Your task to perform on an android device: check data usage Image 0: 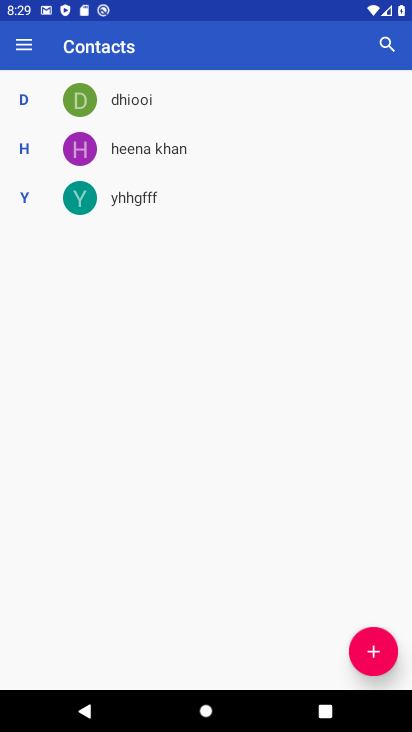
Step 0: press home button
Your task to perform on an android device: check data usage Image 1: 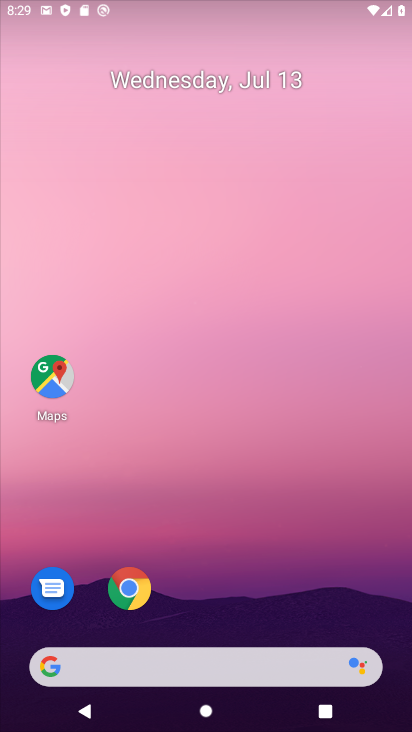
Step 1: drag from (331, 616) to (378, 143)
Your task to perform on an android device: check data usage Image 2: 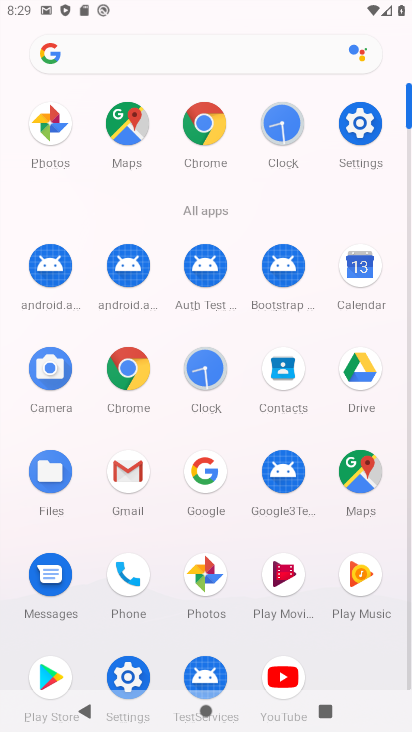
Step 2: click (346, 114)
Your task to perform on an android device: check data usage Image 3: 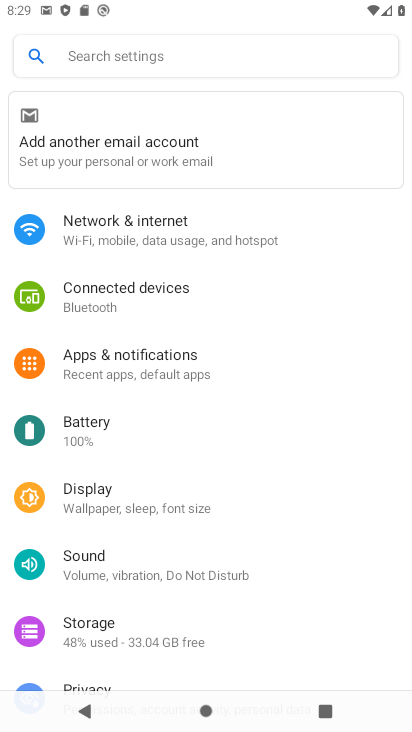
Step 3: click (175, 227)
Your task to perform on an android device: check data usage Image 4: 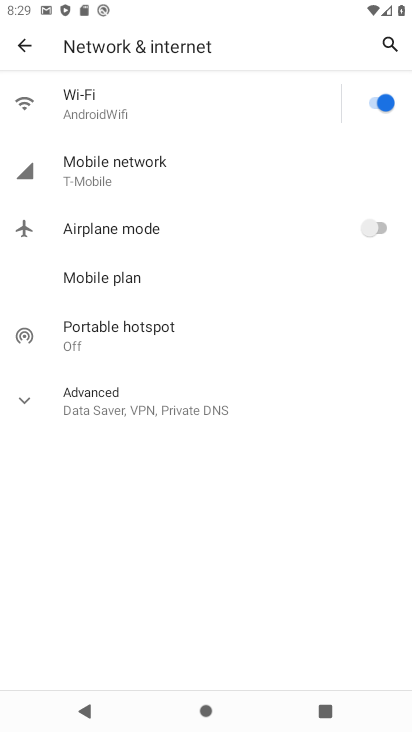
Step 4: click (125, 164)
Your task to perform on an android device: check data usage Image 5: 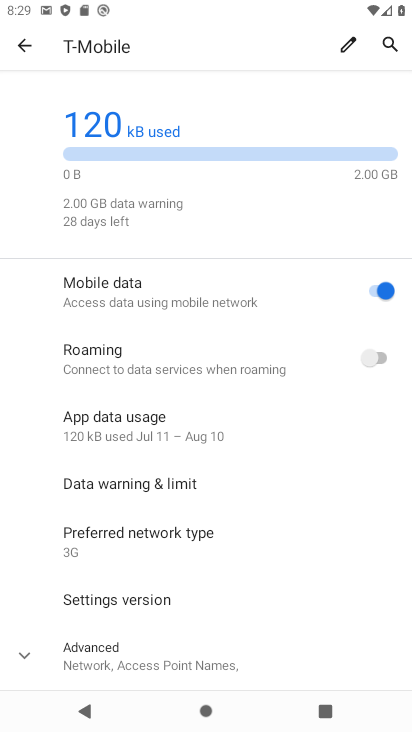
Step 5: click (193, 424)
Your task to perform on an android device: check data usage Image 6: 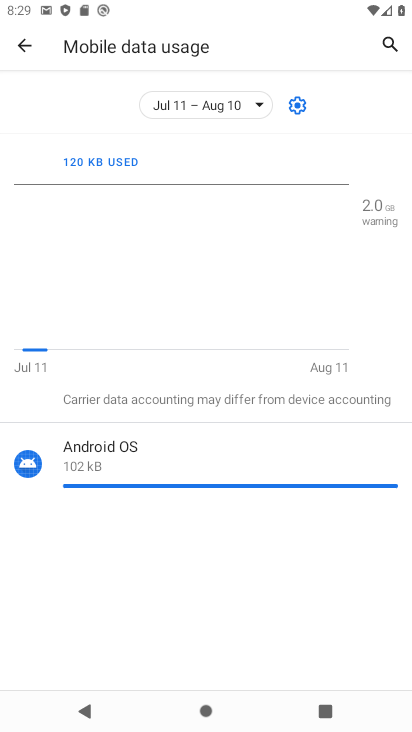
Step 6: task complete